Your task to perform on an android device: clear all cookies in the chrome app Image 0: 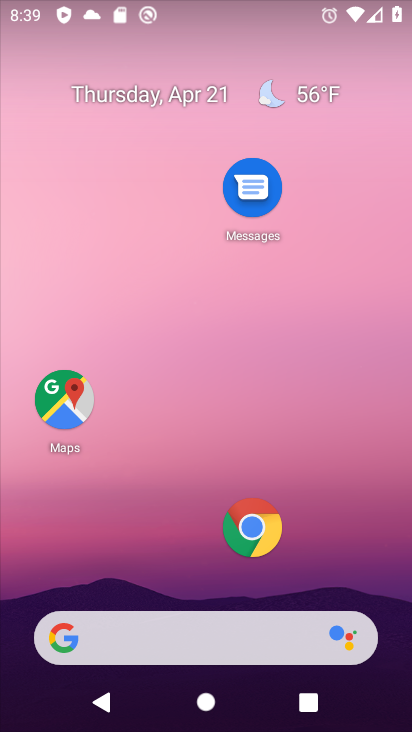
Step 0: drag from (148, 632) to (268, 61)
Your task to perform on an android device: clear all cookies in the chrome app Image 1: 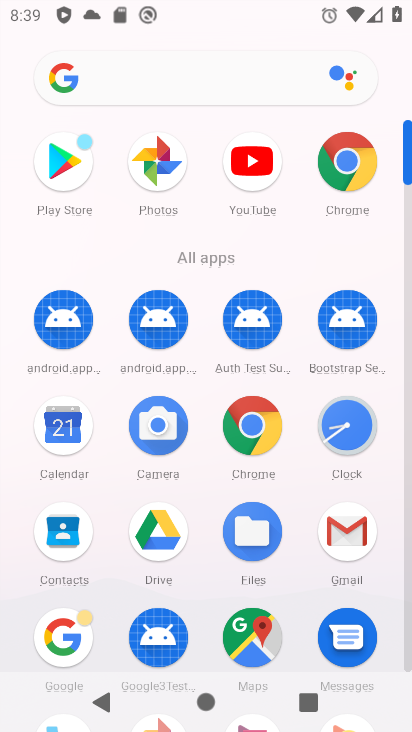
Step 1: click (357, 181)
Your task to perform on an android device: clear all cookies in the chrome app Image 2: 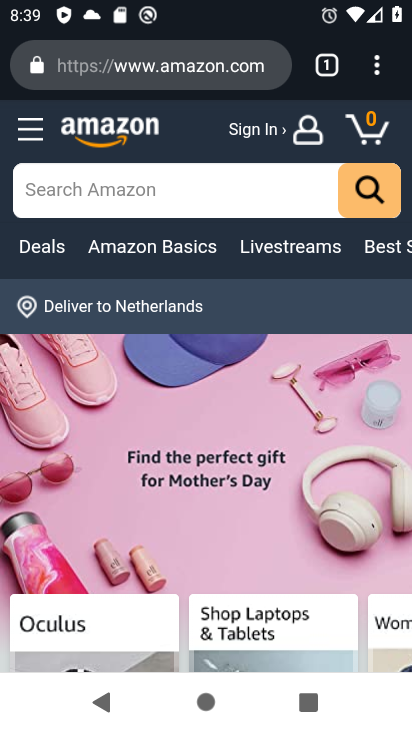
Step 2: click (377, 80)
Your task to perform on an android device: clear all cookies in the chrome app Image 3: 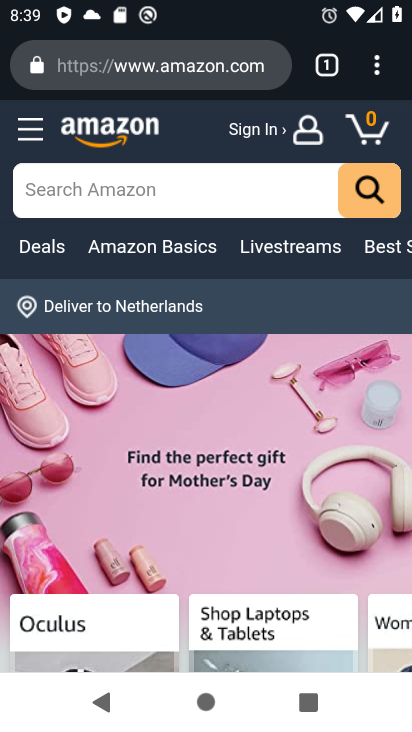
Step 3: click (367, 83)
Your task to perform on an android device: clear all cookies in the chrome app Image 4: 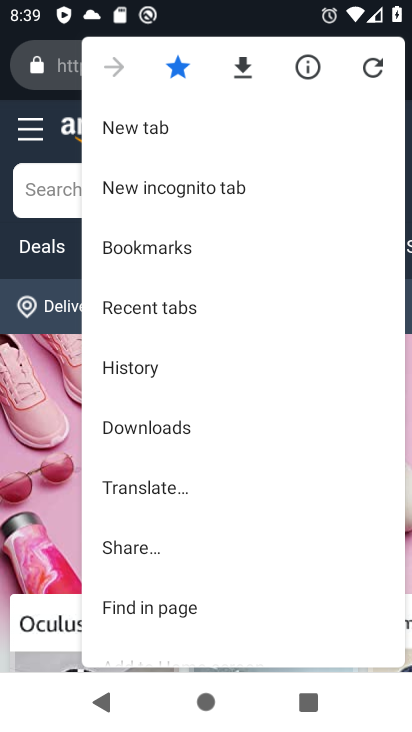
Step 4: drag from (207, 596) to (281, 238)
Your task to perform on an android device: clear all cookies in the chrome app Image 5: 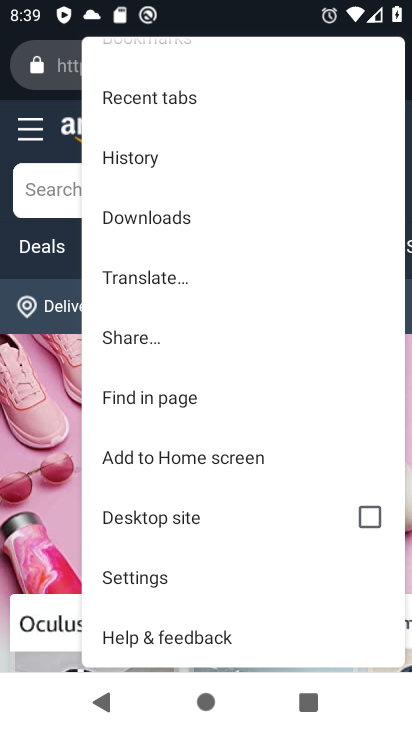
Step 5: click (152, 579)
Your task to perform on an android device: clear all cookies in the chrome app Image 6: 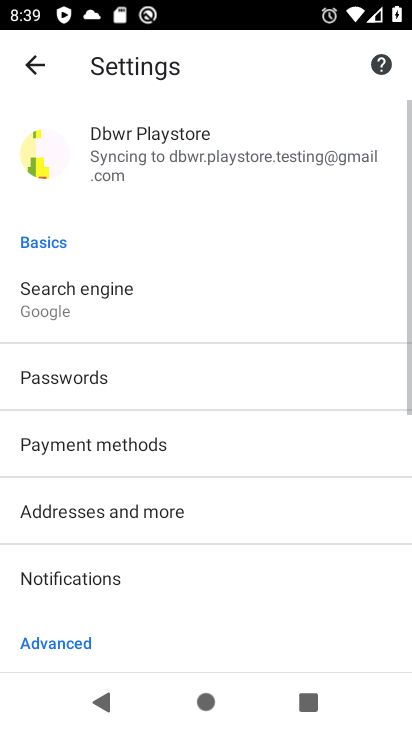
Step 6: drag from (107, 606) to (278, 214)
Your task to perform on an android device: clear all cookies in the chrome app Image 7: 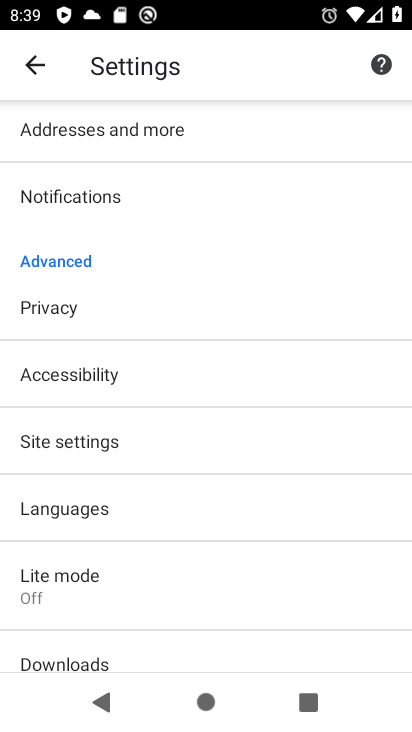
Step 7: click (62, 302)
Your task to perform on an android device: clear all cookies in the chrome app Image 8: 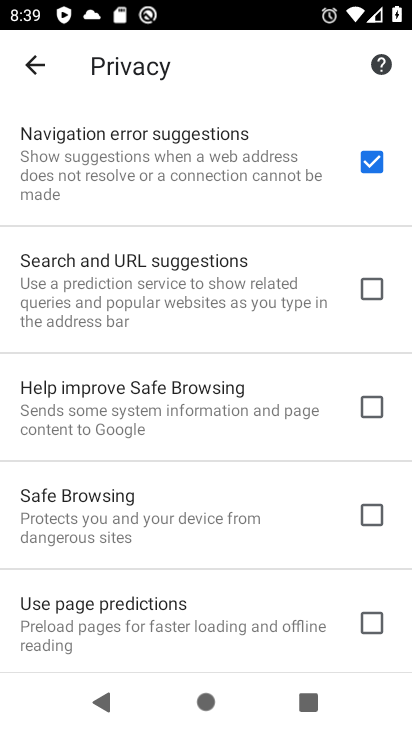
Step 8: drag from (134, 645) to (258, 213)
Your task to perform on an android device: clear all cookies in the chrome app Image 9: 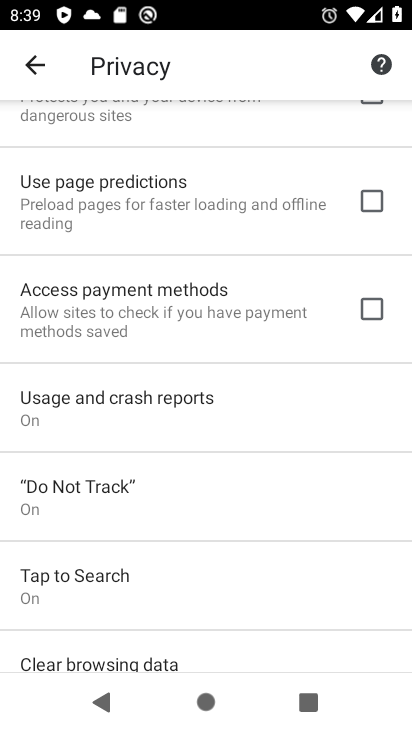
Step 9: drag from (141, 624) to (262, 210)
Your task to perform on an android device: clear all cookies in the chrome app Image 10: 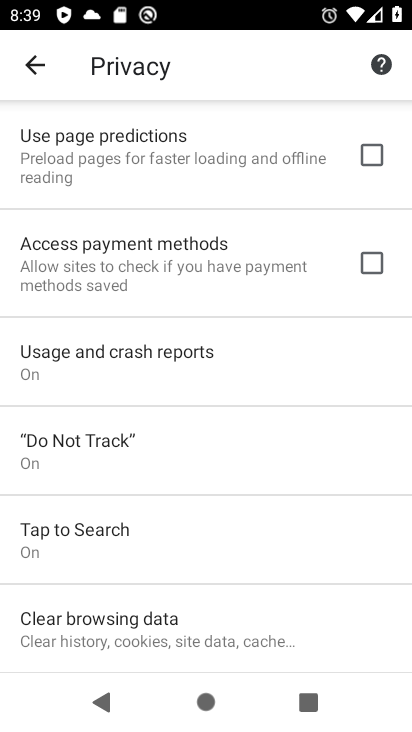
Step 10: click (152, 625)
Your task to perform on an android device: clear all cookies in the chrome app Image 11: 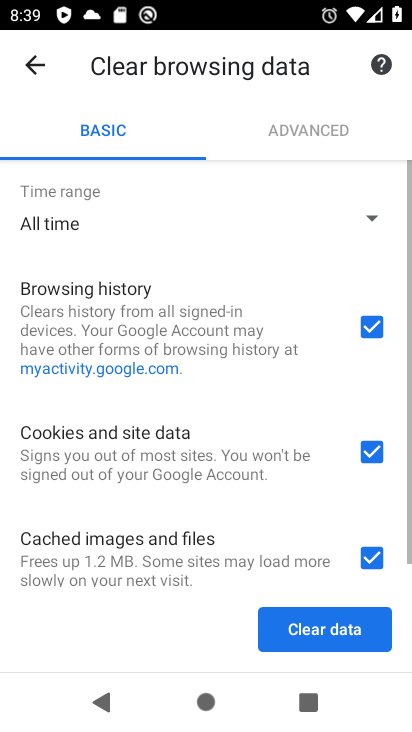
Step 11: click (367, 328)
Your task to perform on an android device: clear all cookies in the chrome app Image 12: 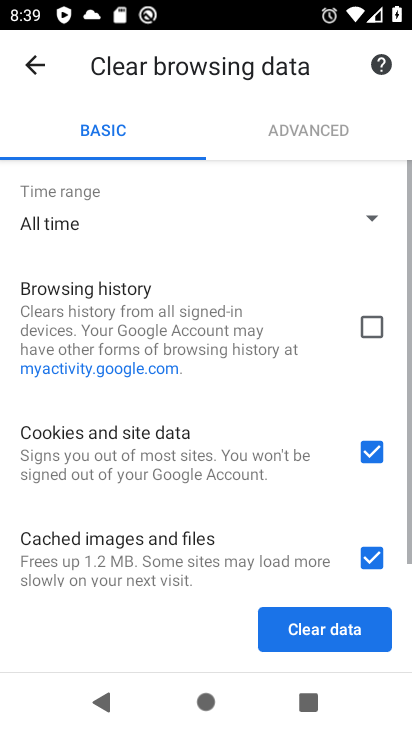
Step 12: click (370, 570)
Your task to perform on an android device: clear all cookies in the chrome app Image 13: 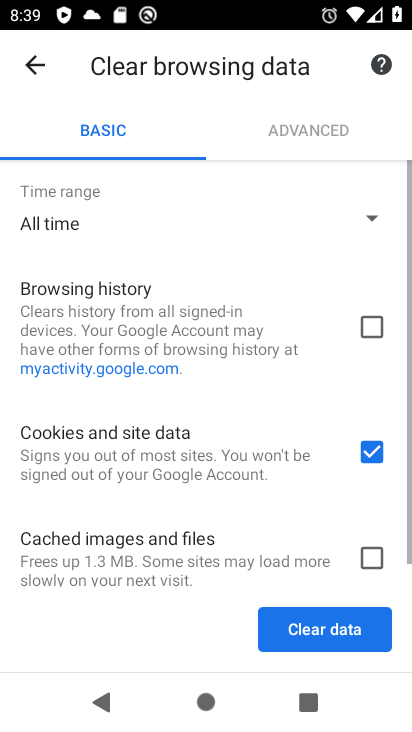
Step 13: drag from (158, 476) to (244, 258)
Your task to perform on an android device: clear all cookies in the chrome app Image 14: 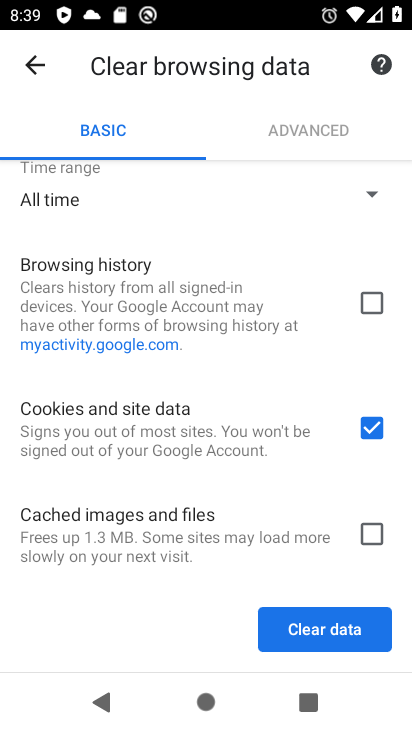
Step 14: click (314, 627)
Your task to perform on an android device: clear all cookies in the chrome app Image 15: 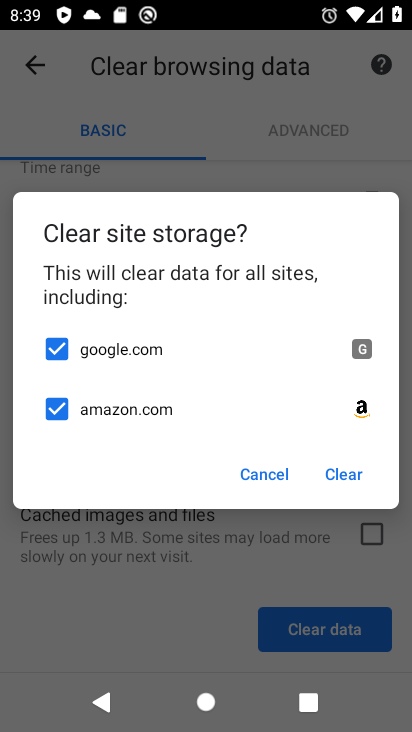
Step 15: click (351, 478)
Your task to perform on an android device: clear all cookies in the chrome app Image 16: 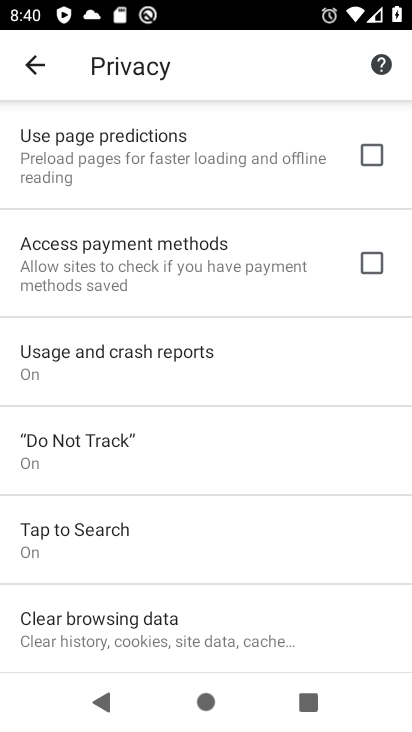
Step 16: task complete